Your task to perform on an android device: turn off notifications settings in the gmail app Image 0: 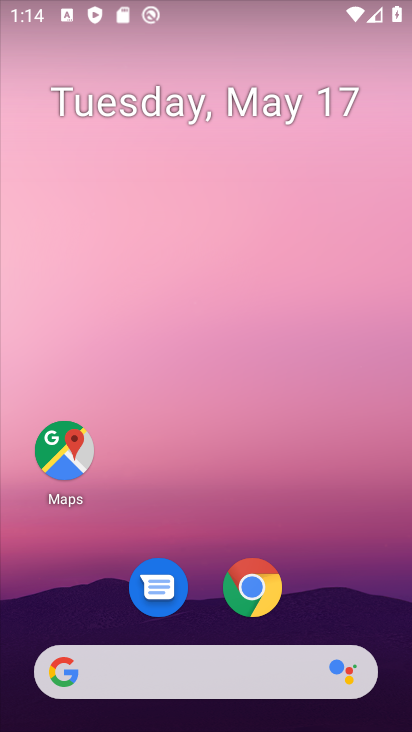
Step 0: drag from (196, 625) to (278, 136)
Your task to perform on an android device: turn off notifications settings in the gmail app Image 1: 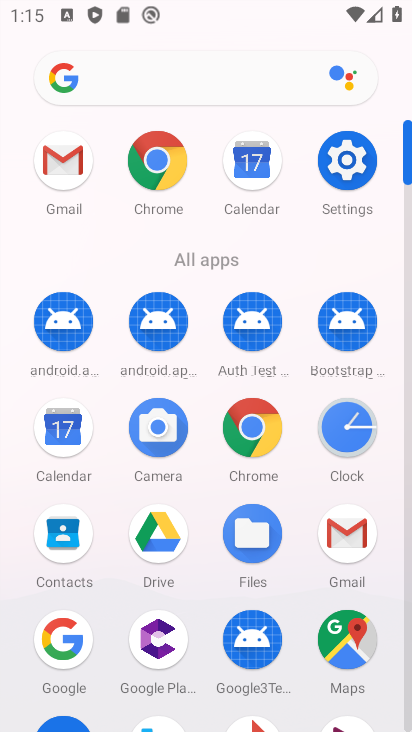
Step 1: click (357, 541)
Your task to perform on an android device: turn off notifications settings in the gmail app Image 2: 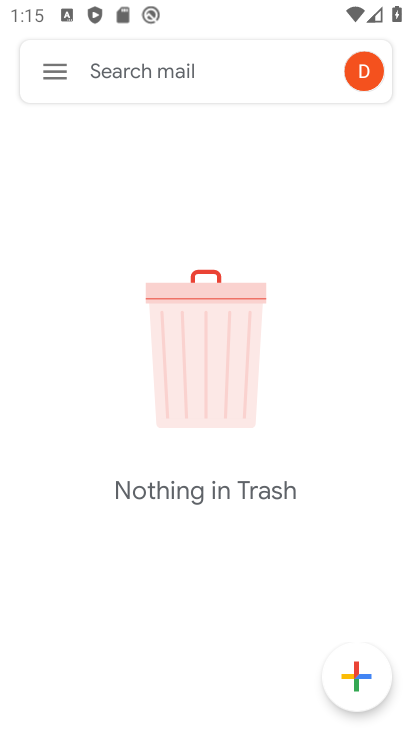
Step 2: click (43, 87)
Your task to perform on an android device: turn off notifications settings in the gmail app Image 3: 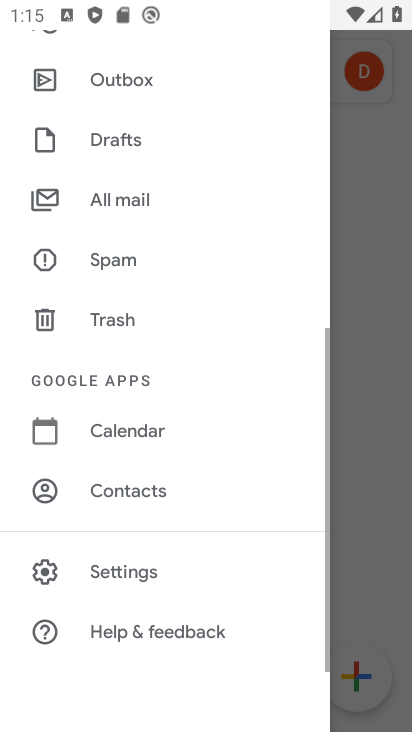
Step 3: click (146, 565)
Your task to perform on an android device: turn off notifications settings in the gmail app Image 4: 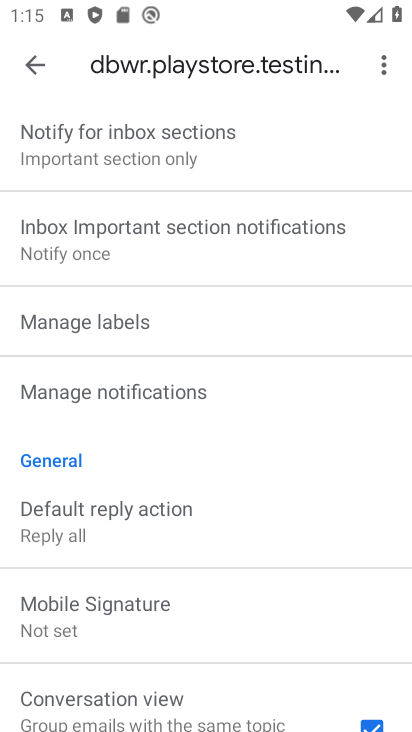
Step 4: click (131, 391)
Your task to perform on an android device: turn off notifications settings in the gmail app Image 5: 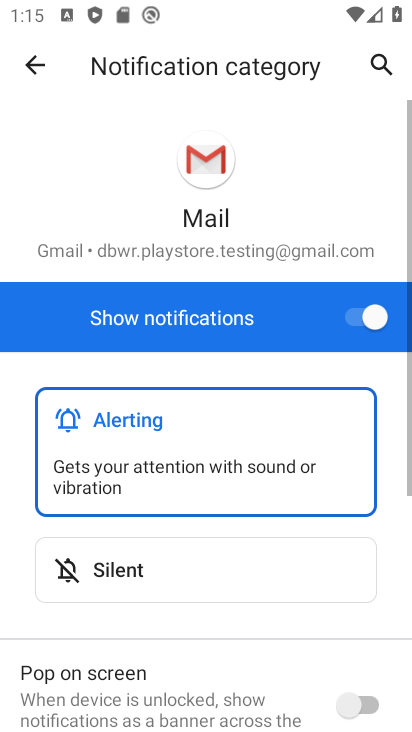
Step 5: drag from (214, 626) to (308, 230)
Your task to perform on an android device: turn off notifications settings in the gmail app Image 6: 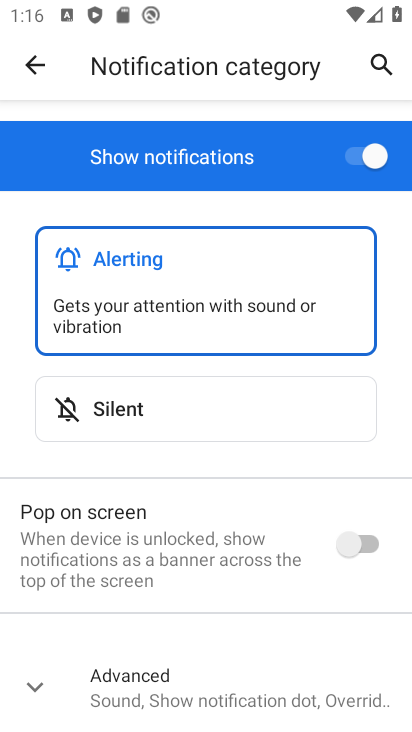
Step 6: drag from (345, 208) to (305, 579)
Your task to perform on an android device: turn off notifications settings in the gmail app Image 7: 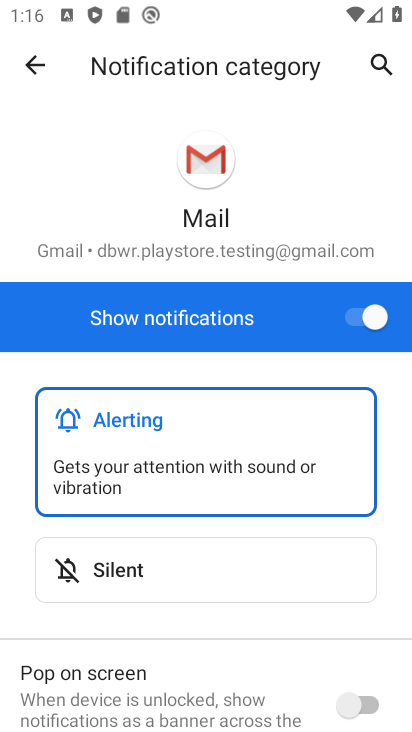
Step 7: click (361, 320)
Your task to perform on an android device: turn off notifications settings in the gmail app Image 8: 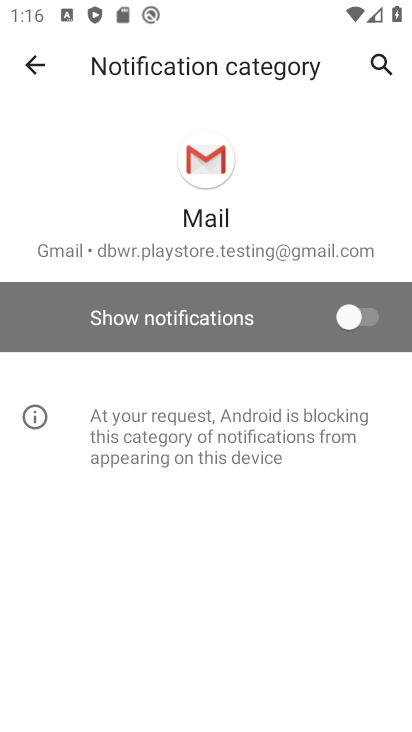
Step 8: task complete